Your task to perform on an android device: turn smart compose on in the gmail app Image 0: 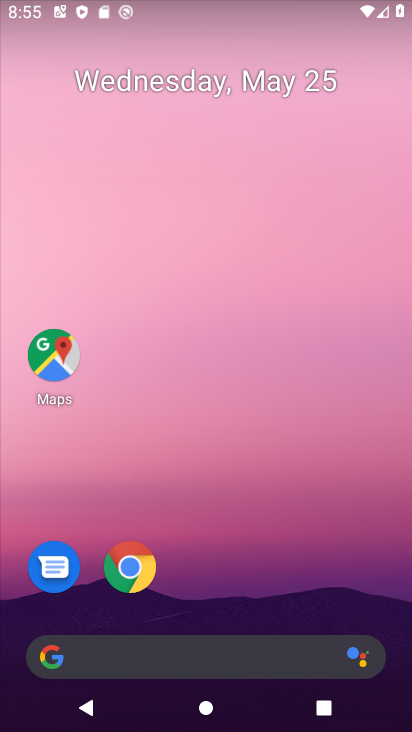
Step 0: drag from (261, 605) to (240, 333)
Your task to perform on an android device: turn smart compose on in the gmail app Image 1: 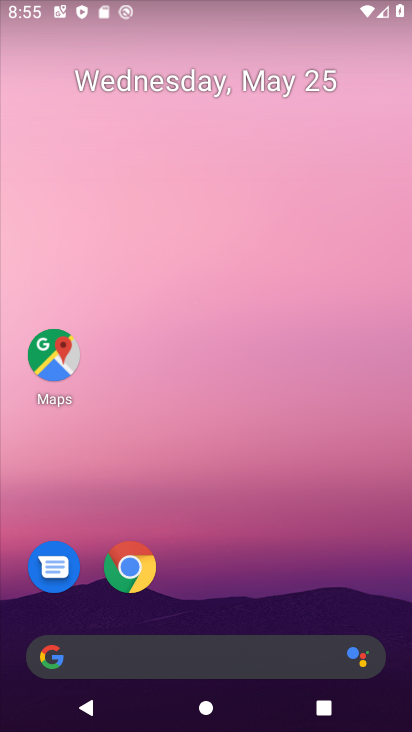
Step 1: drag from (249, 547) to (371, 13)
Your task to perform on an android device: turn smart compose on in the gmail app Image 2: 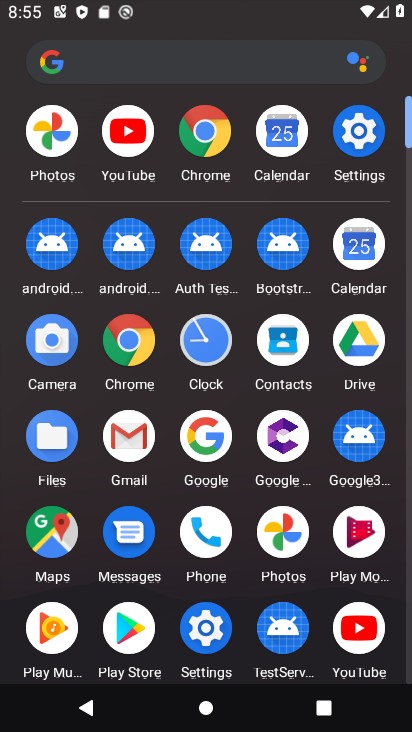
Step 2: click (143, 423)
Your task to perform on an android device: turn smart compose on in the gmail app Image 3: 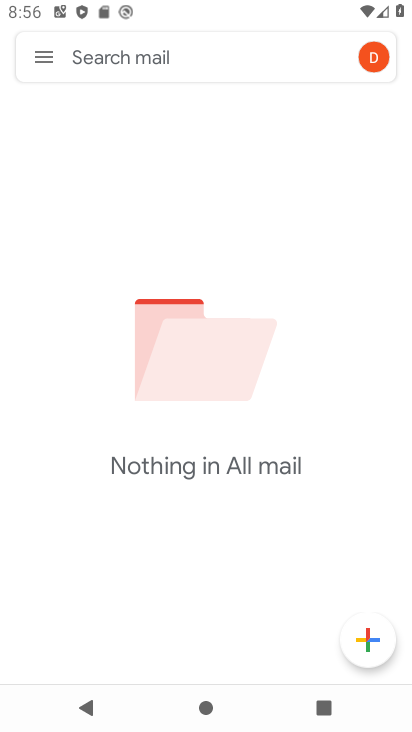
Step 3: task complete